Your task to perform on an android device: check battery use Image 0: 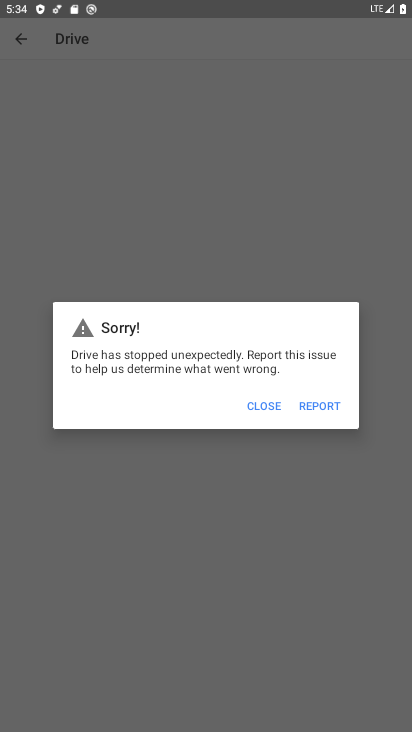
Step 0: press home button
Your task to perform on an android device: check battery use Image 1: 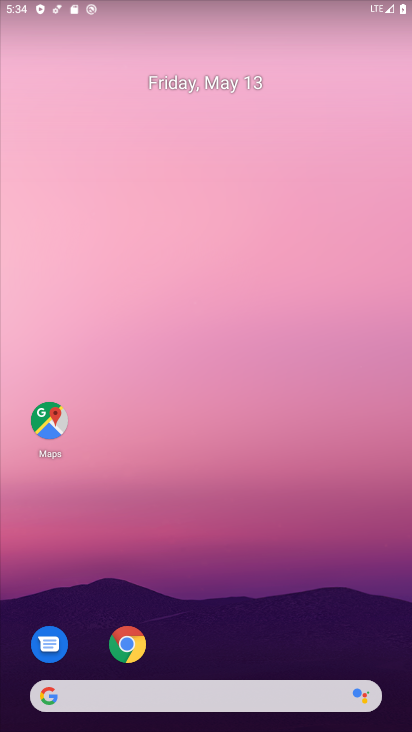
Step 1: drag from (205, 651) to (227, 186)
Your task to perform on an android device: check battery use Image 2: 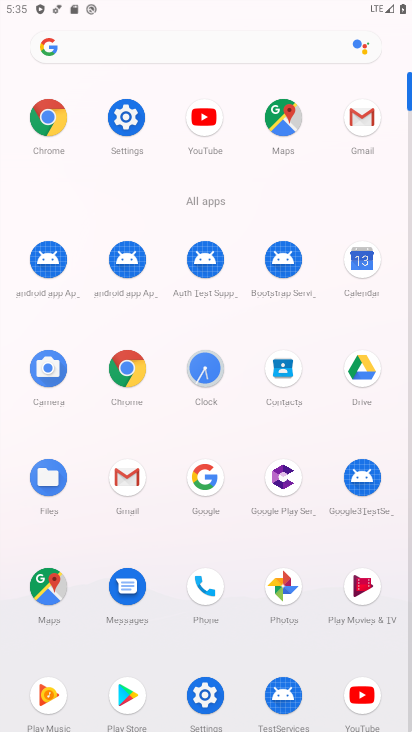
Step 2: click (124, 140)
Your task to perform on an android device: check battery use Image 3: 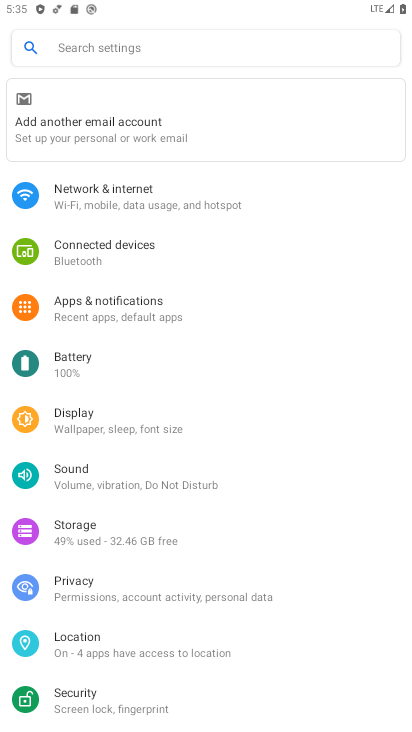
Step 3: click (87, 369)
Your task to perform on an android device: check battery use Image 4: 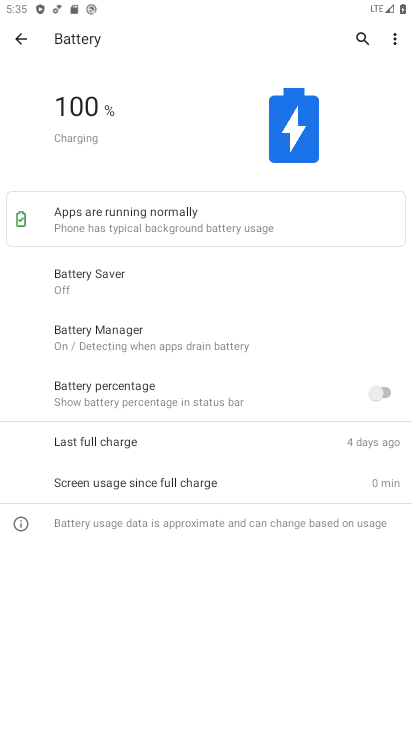
Step 4: click (390, 33)
Your task to perform on an android device: check battery use Image 5: 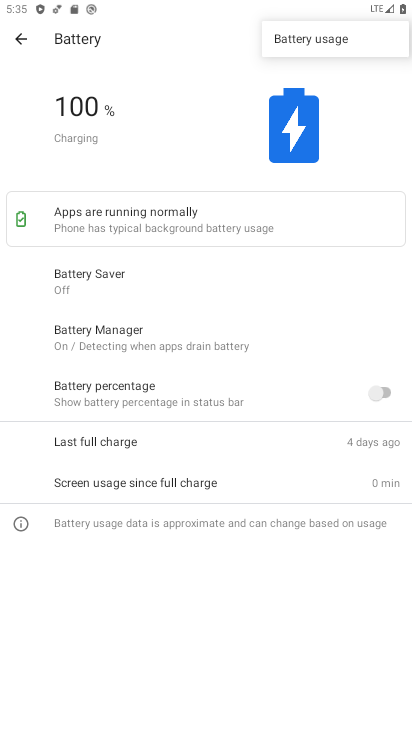
Step 5: click (316, 41)
Your task to perform on an android device: check battery use Image 6: 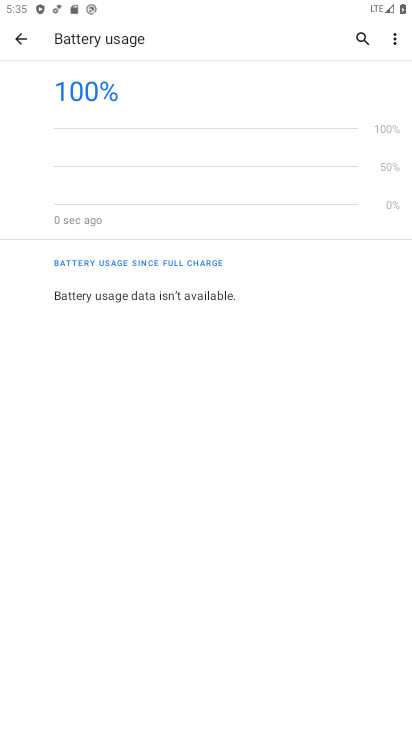
Step 6: task complete